Your task to perform on an android device: What is the speed of a rocket? Image 0: 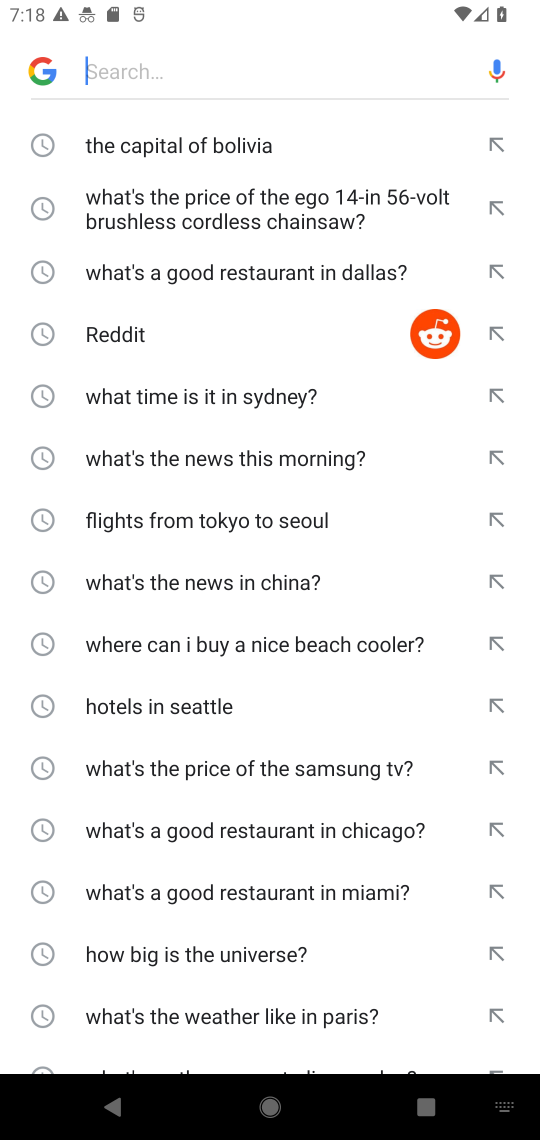
Step 0: type "What is the speed of a rocket?"
Your task to perform on an android device: What is the speed of a rocket? Image 1: 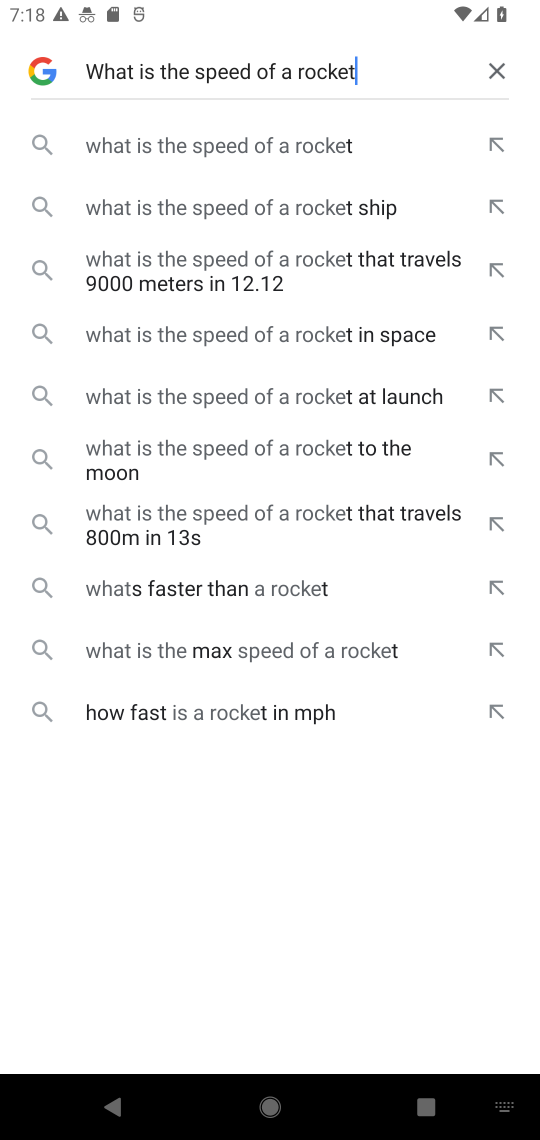
Step 1: press enter
Your task to perform on an android device: What is the speed of a rocket? Image 2: 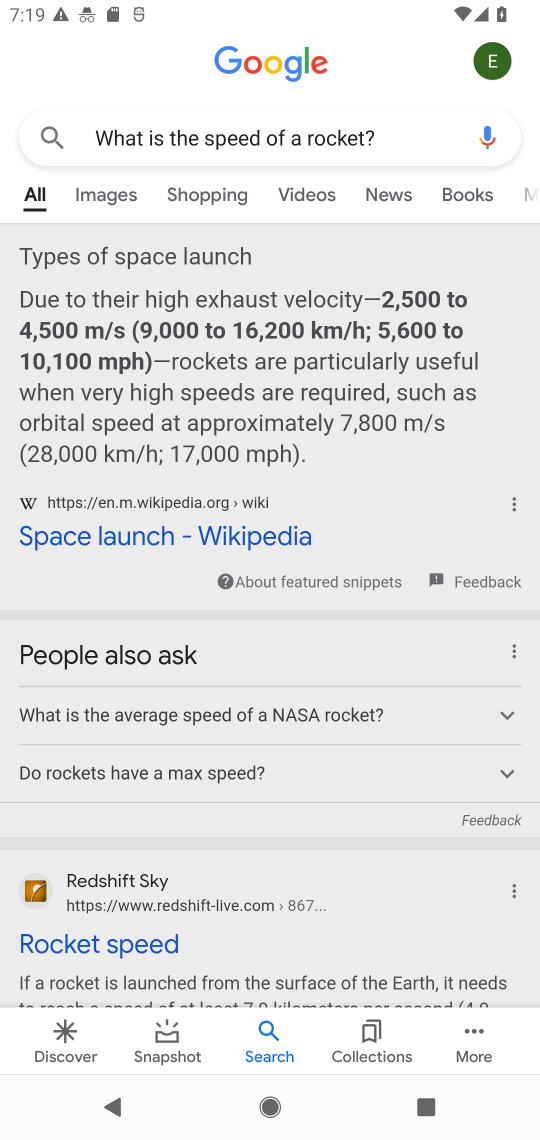
Step 2: task complete